Your task to perform on an android device: Go to privacy settings Image 0: 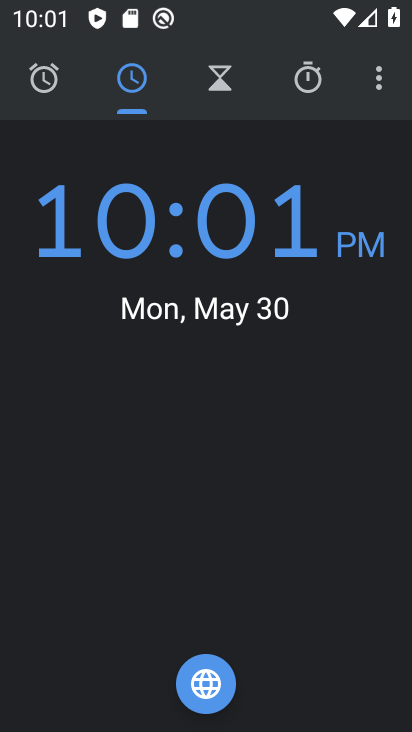
Step 0: press home button
Your task to perform on an android device: Go to privacy settings Image 1: 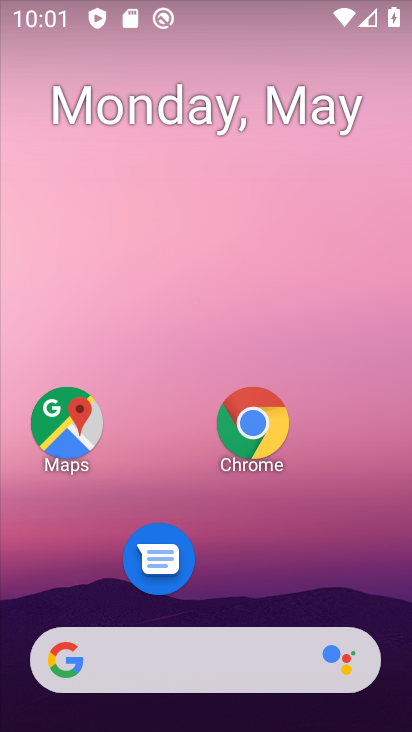
Step 1: drag from (212, 611) to (240, 92)
Your task to perform on an android device: Go to privacy settings Image 2: 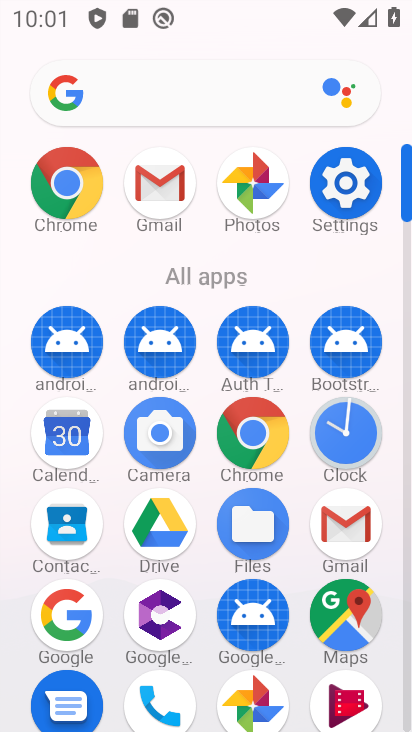
Step 2: click (342, 178)
Your task to perform on an android device: Go to privacy settings Image 3: 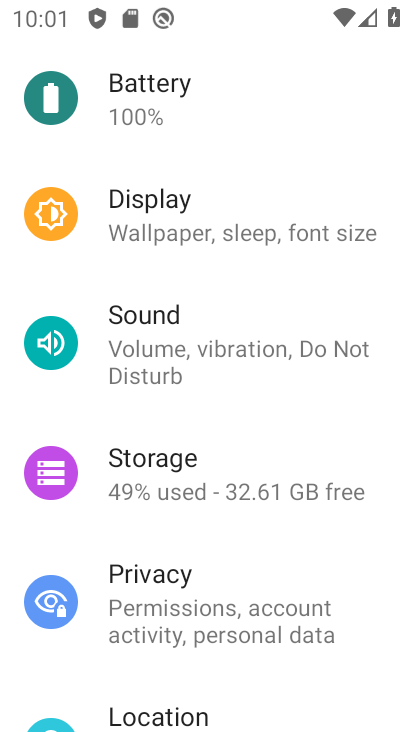
Step 3: click (200, 606)
Your task to perform on an android device: Go to privacy settings Image 4: 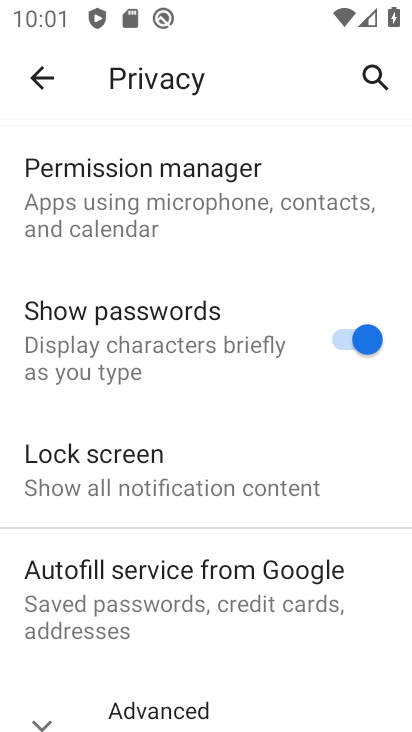
Step 4: task complete